Your task to perform on an android device: Open notification settings Image 0: 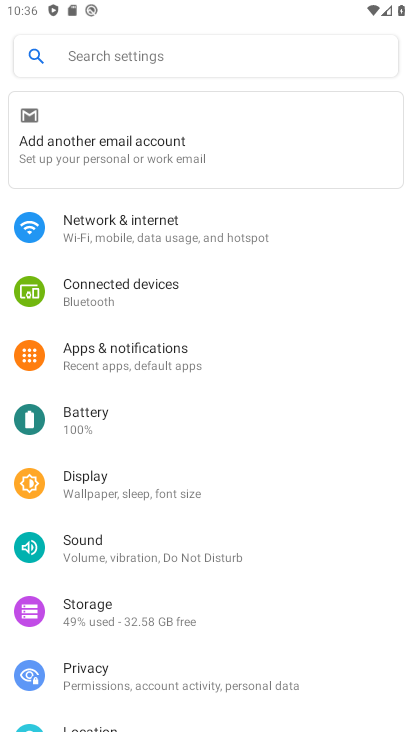
Step 0: click (145, 353)
Your task to perform on an android device: Open notification settings Image 1: 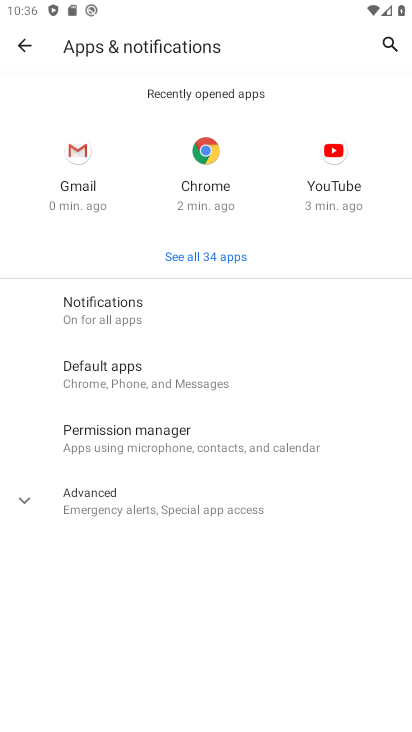
Step 1: click (117, 307)
Your task to perform on an android device: Open notification settings Image 2: 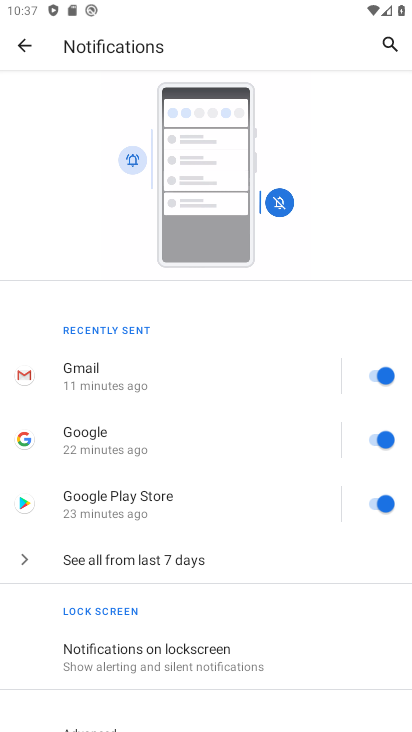
Step 2: task complete